Your task to perform on an android device: set the timer Image 0: 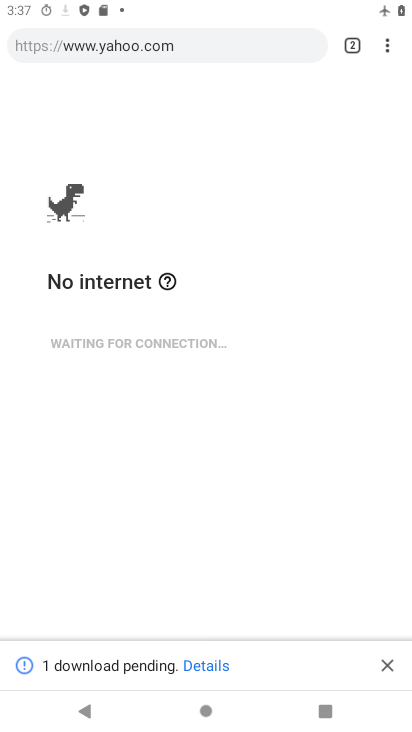
Step 0: press back button
Your task to perform on an android device: set the timer Image 1: 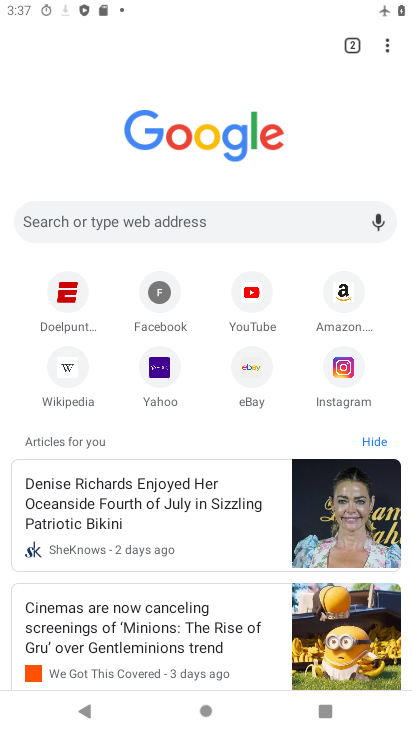
Step 1: drag from (391, 42) to (411, 237)
Your task to perform on an android device: set the timer Image 2: 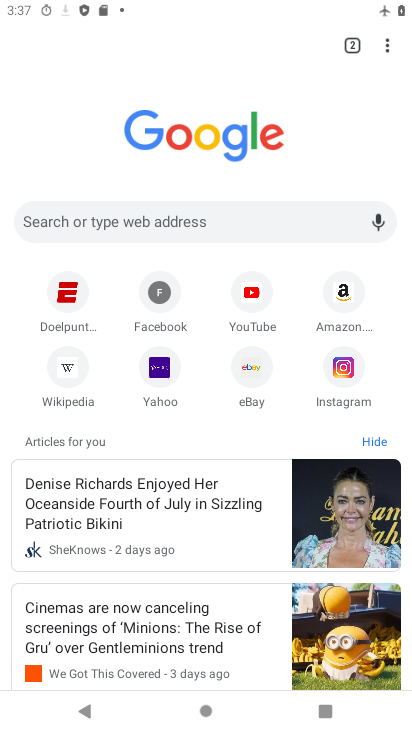
Step 2: press back button
Your task to perform on an android device: set the timer Image 3: 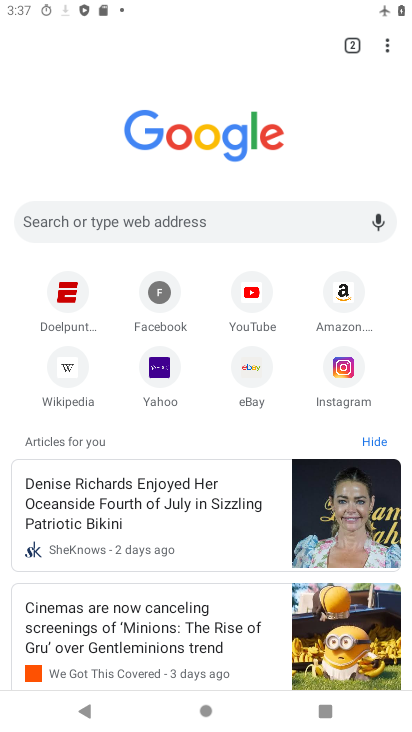
Step 3: press back button
Your task to perform on an android device: set the timer Image 4: 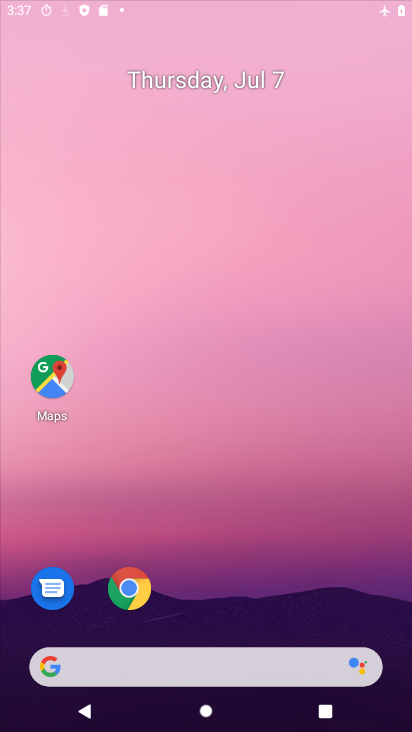
Step 4: press back button
Your task to perform on an android device: set the timer Image 5: 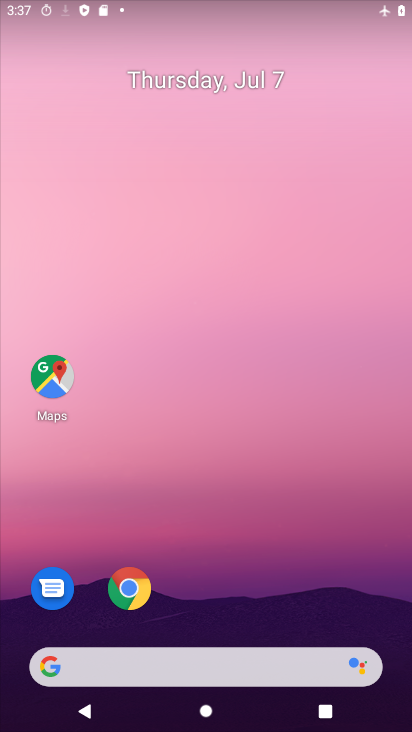
Step 5: drag from (233, 653) to (177, 74)
Your task to perform on an android device: set the timer Image 6: 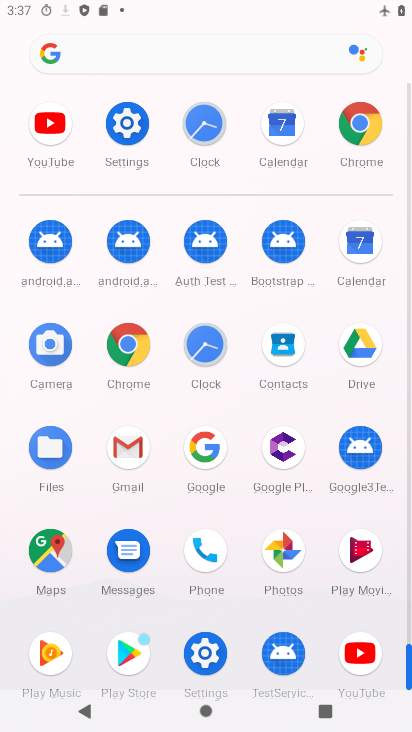
Step 6: click (207, 126)
Your task to perform on an android device: set the timer Image 7: 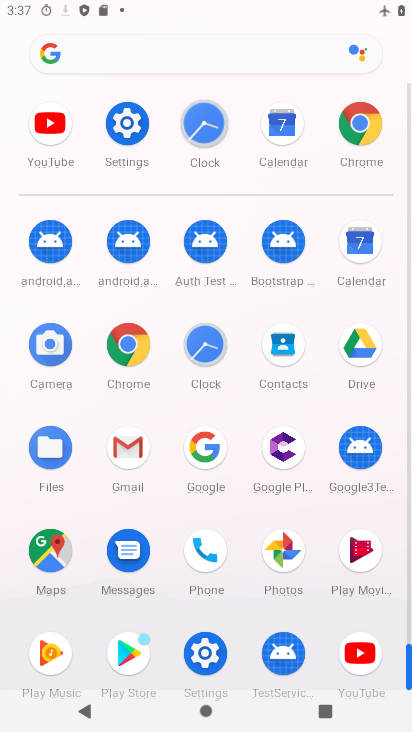
Step 7: click (207, 126)
Your task to perform on an android device: set the timer Image 8: 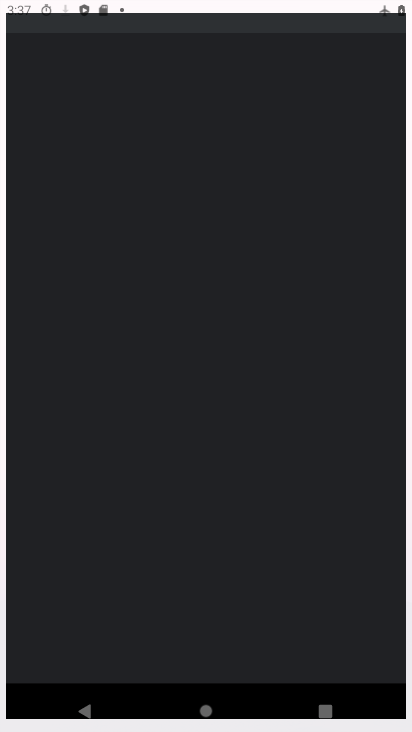
Step 8: click (208, 124)
Your task to perform on an android device: set the timer Image 9: 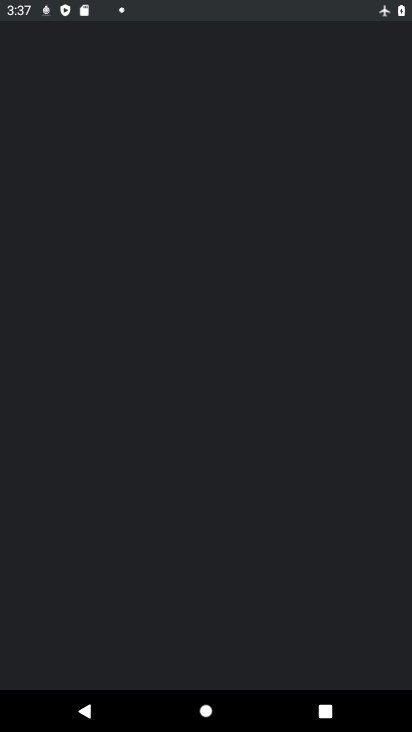
Step 9: click (211, 124)
Your task to perform on an android device: set the timer Image 10: 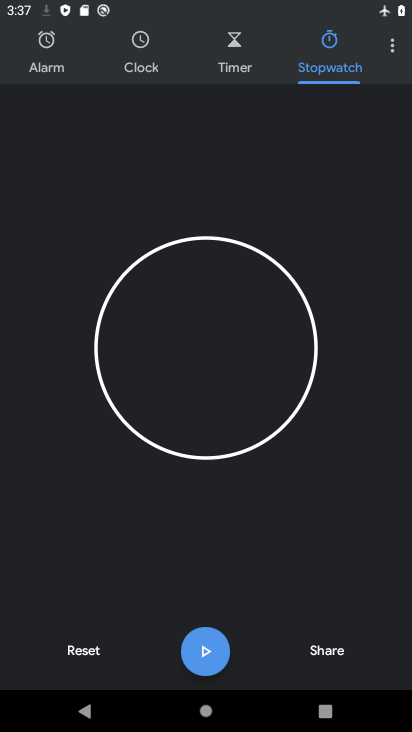
Step 10: click (239, 53)
Your task to perform on an android device: set the timer Image 11: 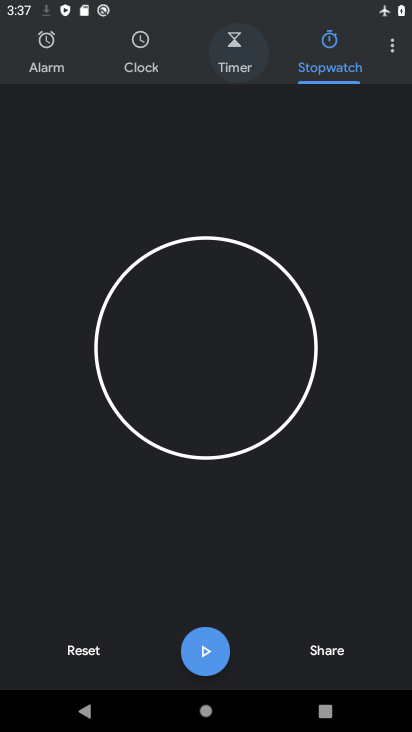
Step 11: click (239, 53)
Your task to perform on an android device: set the timer Image 12: 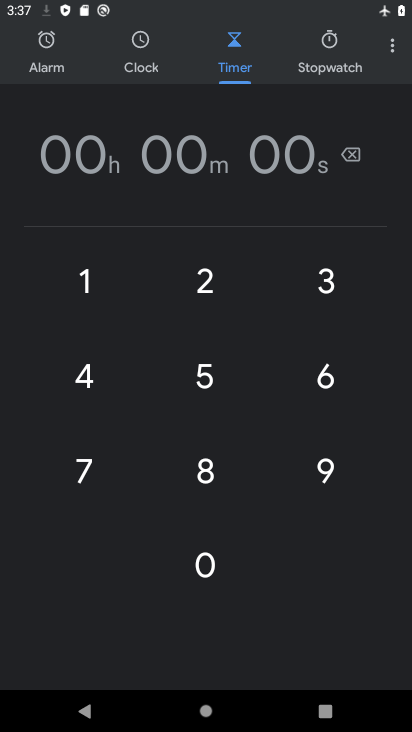
Step 12: click (221, 512)
Your task to perform on an android device: set the timer Image 13: 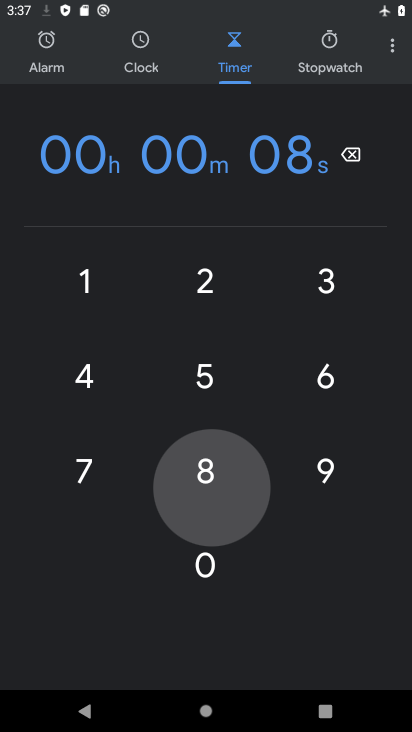
Step 13: click (206, 425)
Your task to perform on an android device: set the timer Image 14: 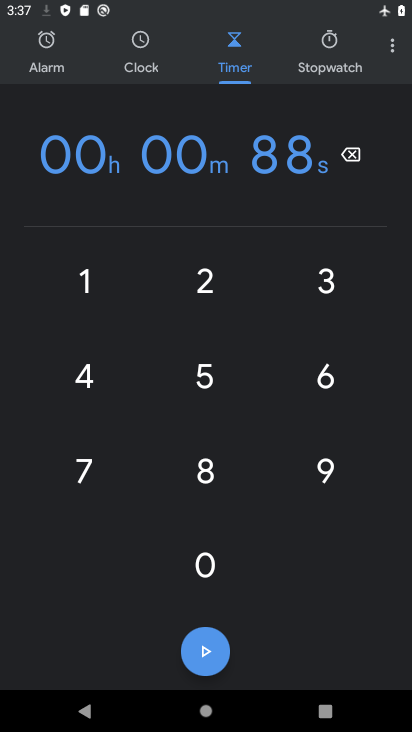
Step 14: click (205, 665)
Your task to perform on an android device: set the timer Image 15: 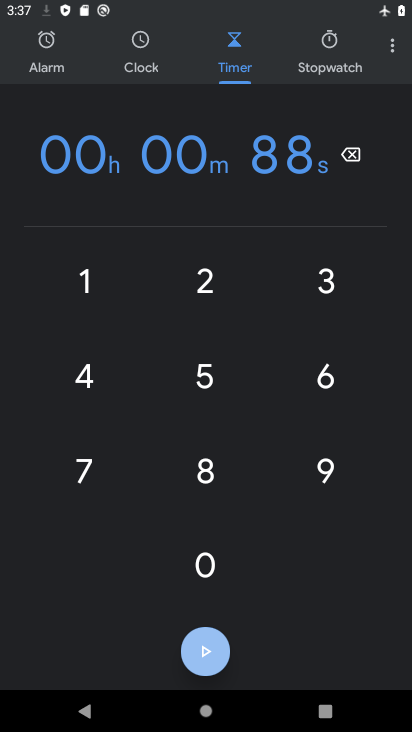
Step 15: click (205, 665)
Your task to perform on an android device: set the timer Image 16: 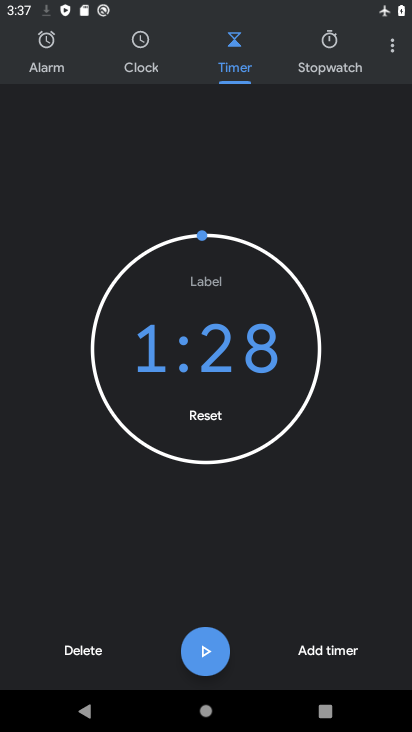
Step 16: click (208, 645)
Your task to perform on an android device: set the timer Image 17: 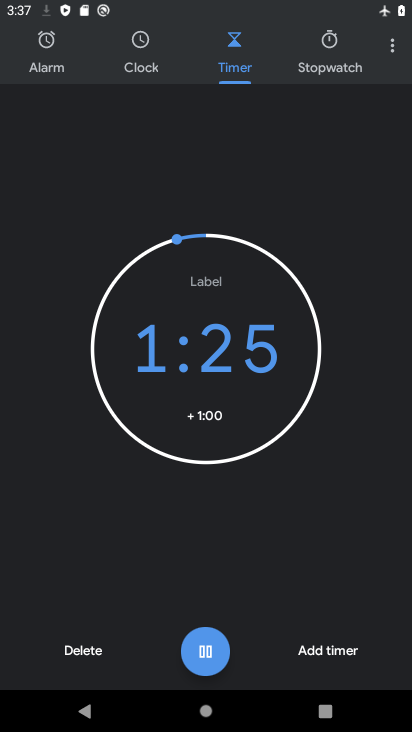
Step 17: task complete